Your task to perform on an android device: open a bookmark in the chrome app Image 0: 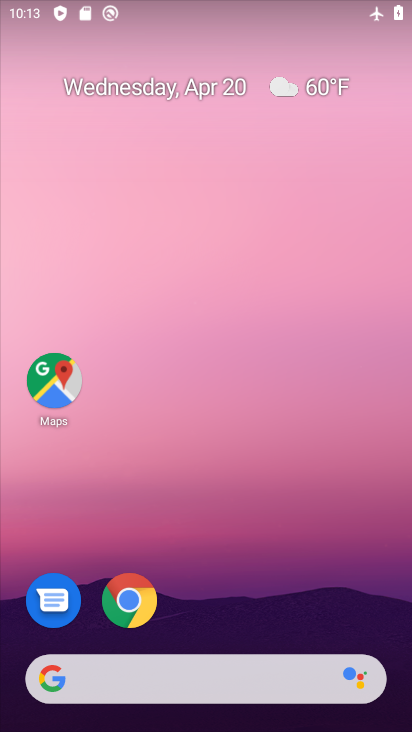
Step 0: click (130, 597)
Your task to perform on an android device: open a bookmark in the chrome app Image 1: 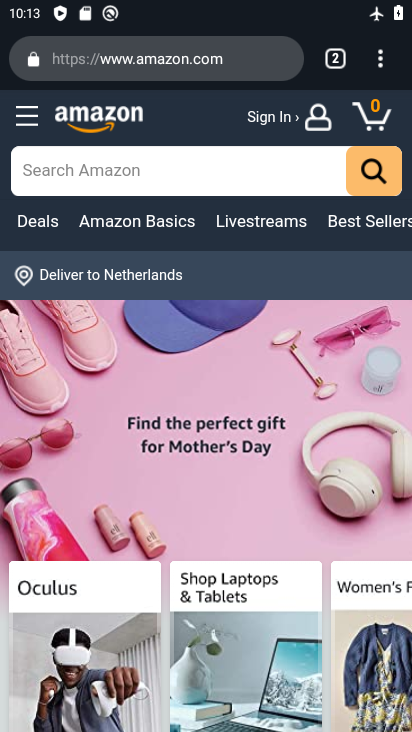
Step 1: click (392, 70)
Your task to perform on an android device: open a bookmark in the chrome app Image 2: 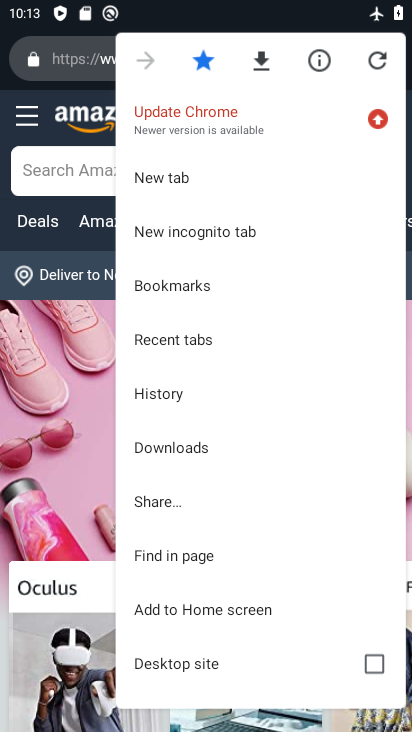
Step 2: click (233, 296)
Your task to perform on an android device: open a bookmark in the chrome app Image 3: 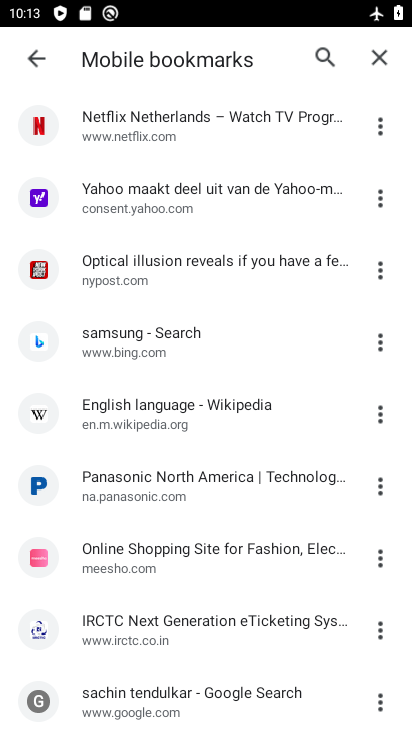
Step 3: click (136, 694)
Your task to perform on an android device: open a bookmark in the chrome app Image 4: 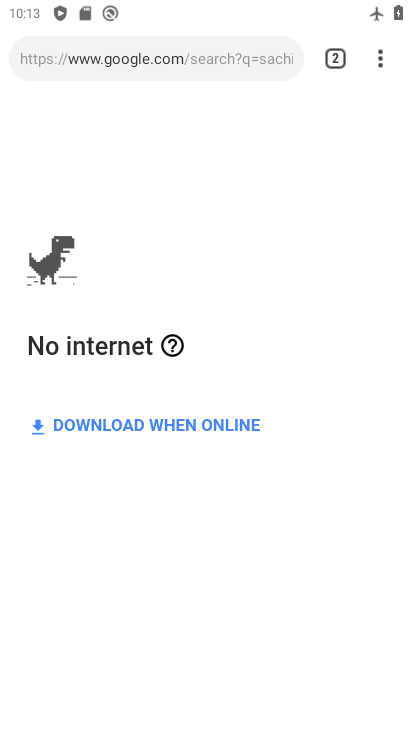
Step 4: drag from (251, 15) to (308, 543)
Your task to perform on an android device: open a bookmark in the chrome app Image 5: 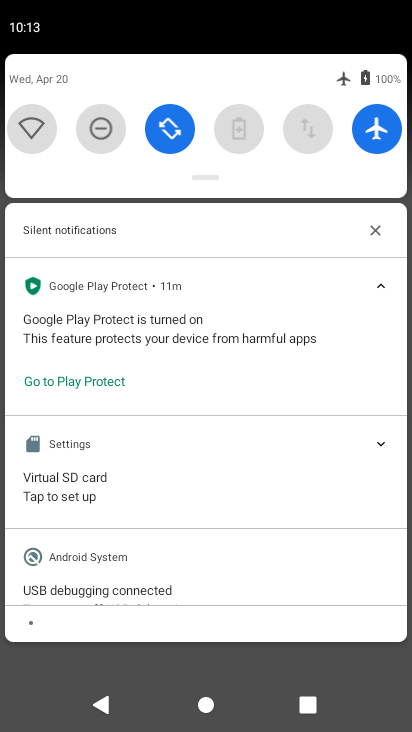
Step 5: click (384, 142)
Your task to perform on an android device: open a bookmark in the chrome app Image 6: 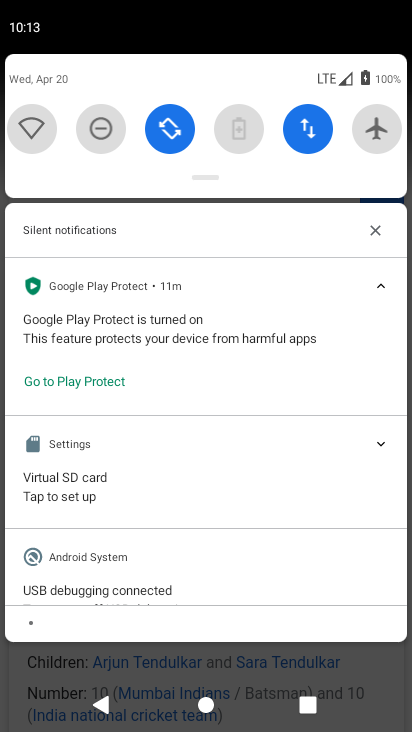
Step 6: task complete